Your task to perform on an android device: What's on my calendar today? Image 0: 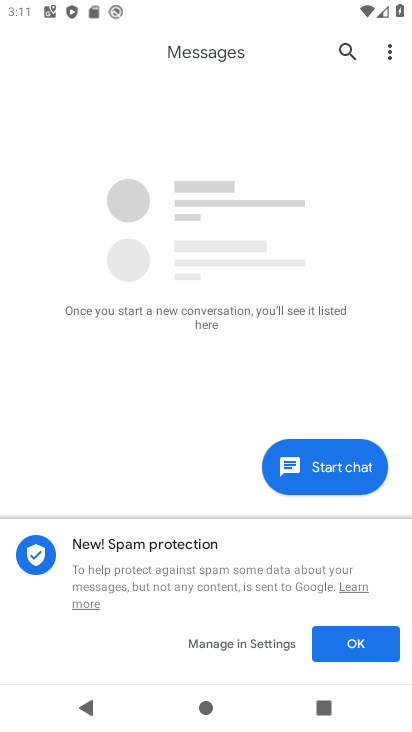
Step 0: press home button
Your task to perform on an android device: What's on my calendar today? Image 1: 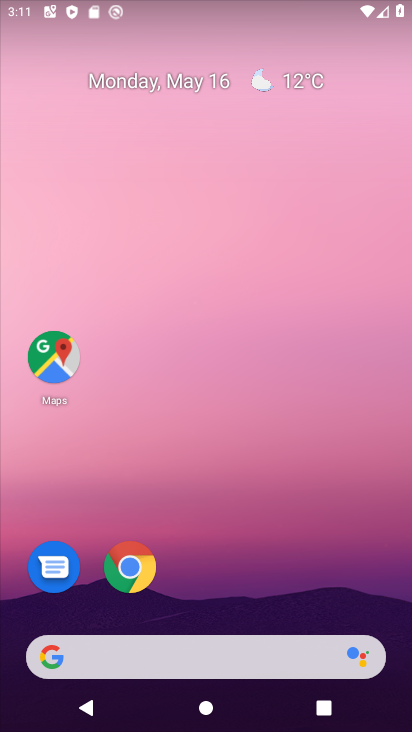
Step 1: drag from (270, 572) to (256, 63)
Your task to perform on an android device: What's on my calendar today? Image 2: 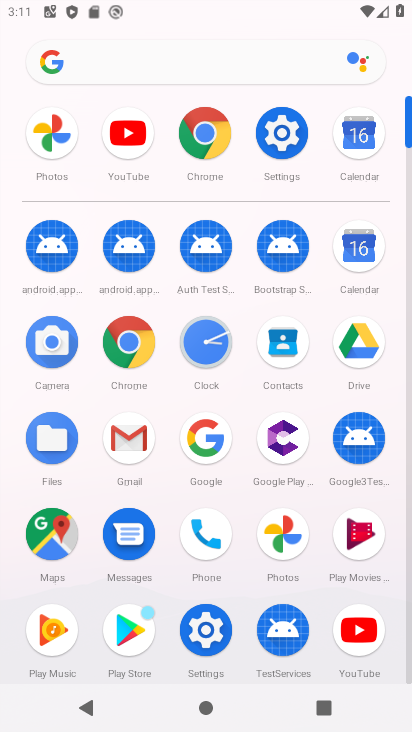
Step 2: click (364, 234)
Your task to perform on an android device: What's on my calendar today? Image 3: 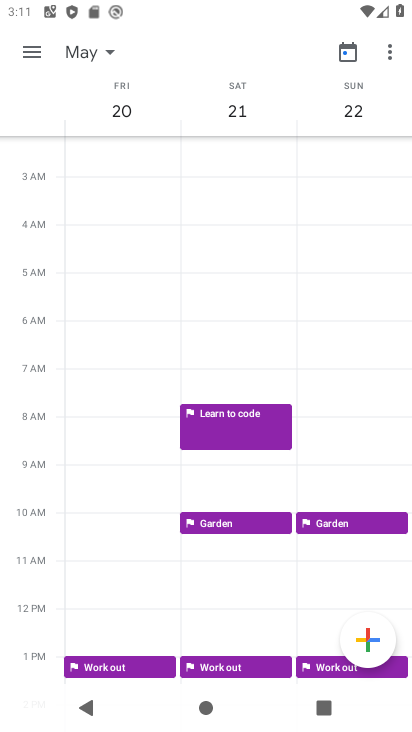
Step 3: click (93, 53)
Your task to perform on an android device: What's on my calendar today? Image 4: 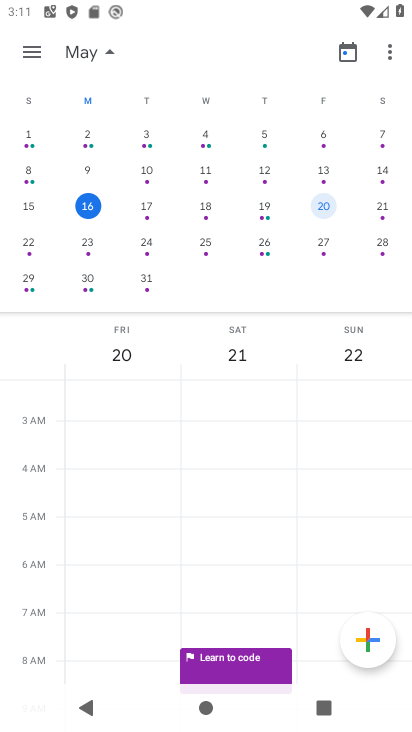
Step 4: click (89, 206)
Your task to perform on an android device: What's on my calendar today? Image 5: 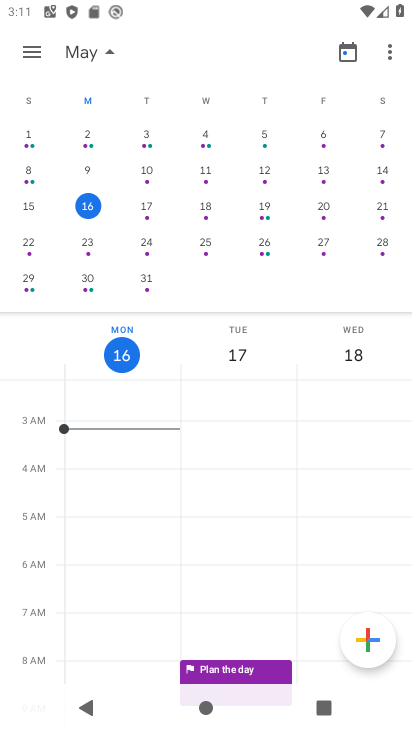
Step 5: task complete